Your task to perform on an android device: Open CNN.com Image 0: 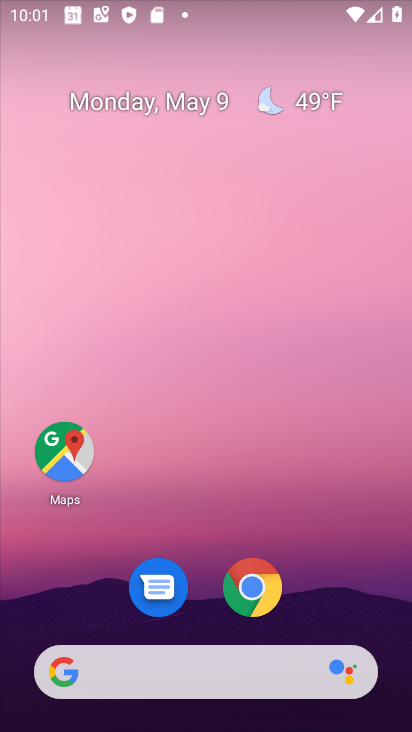
Step 0: drag from (358, 583) to (265, 86)
Your task to perform on an android device: Open CNN.com Image 1: 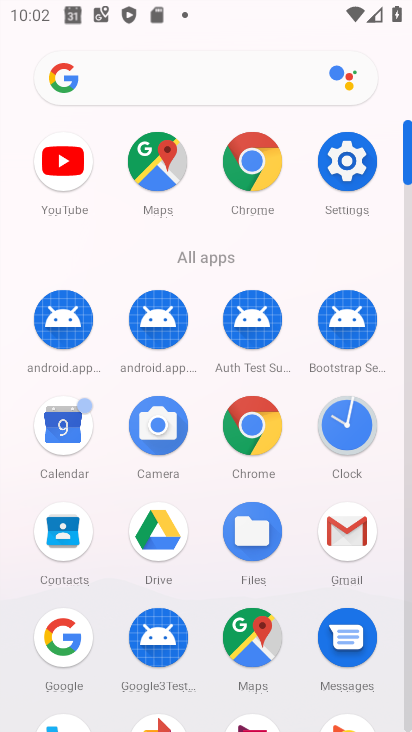
Step 1: click (248, 163)
Your task to perform on an android device: Open CNN.com Image 2: 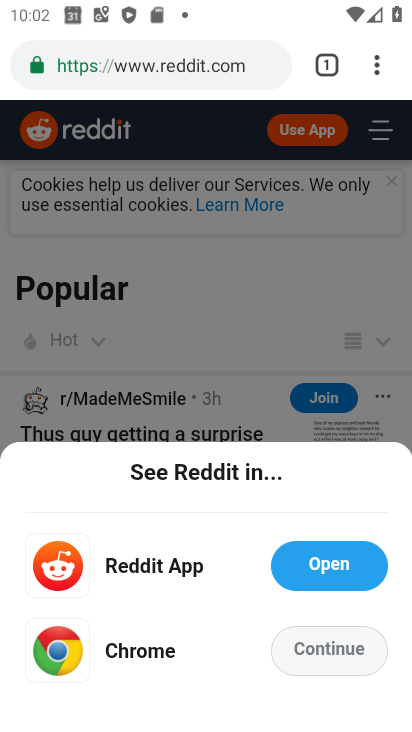
Step 2: click (208, 73)
Your task to perform on an android device: Open CNN.com Image 3: 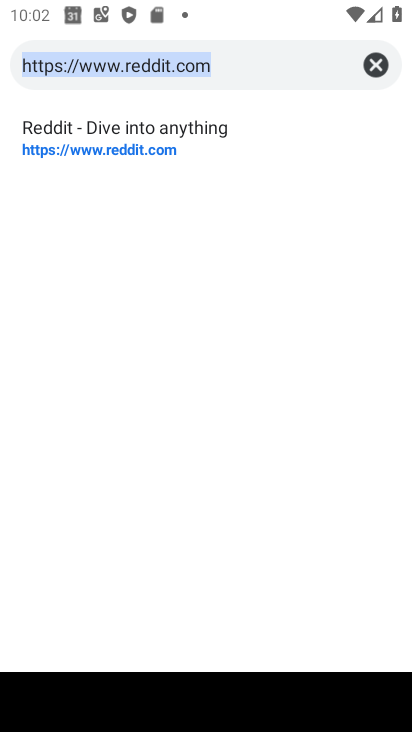
Step 3: click (389, 68)
Your task to perform on an android device: Open CNN.com Image 4: 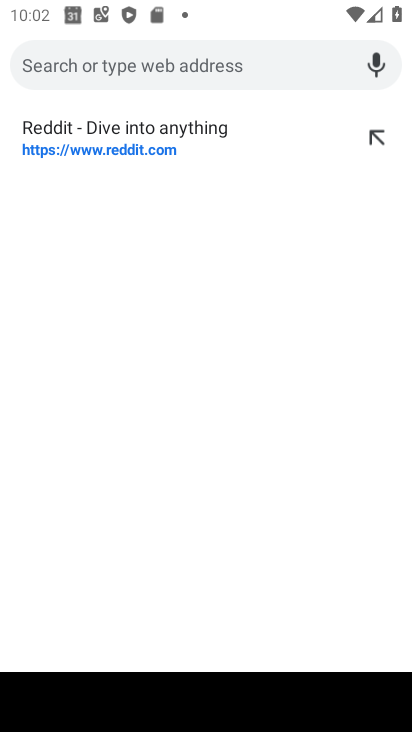
Step 4: type "cnn"
Your task to perform on an android device: Open CNN.com Image 5: 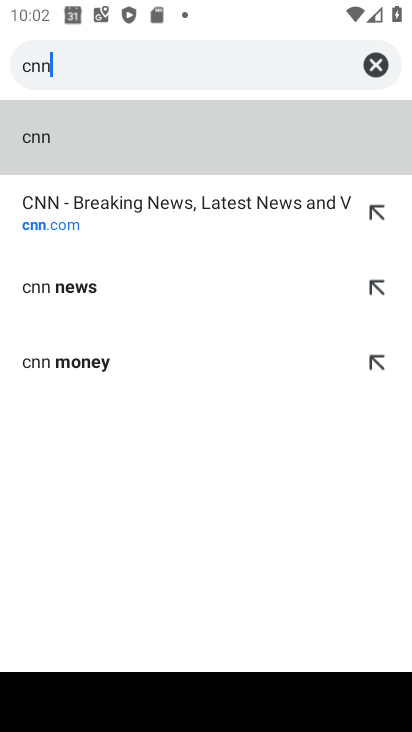
Step 5: click (63, 204)
Your task to perform on an android device: Open CNN.com Image 6: 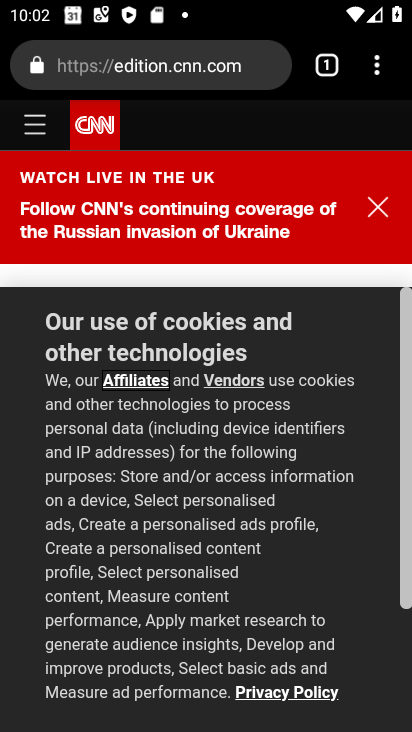
Step 6: task complete